Your task to perform on an android device: Clear all items from cart on target. Search for razer kraken on target, select the first entry, and add it to the cart. Image 0: 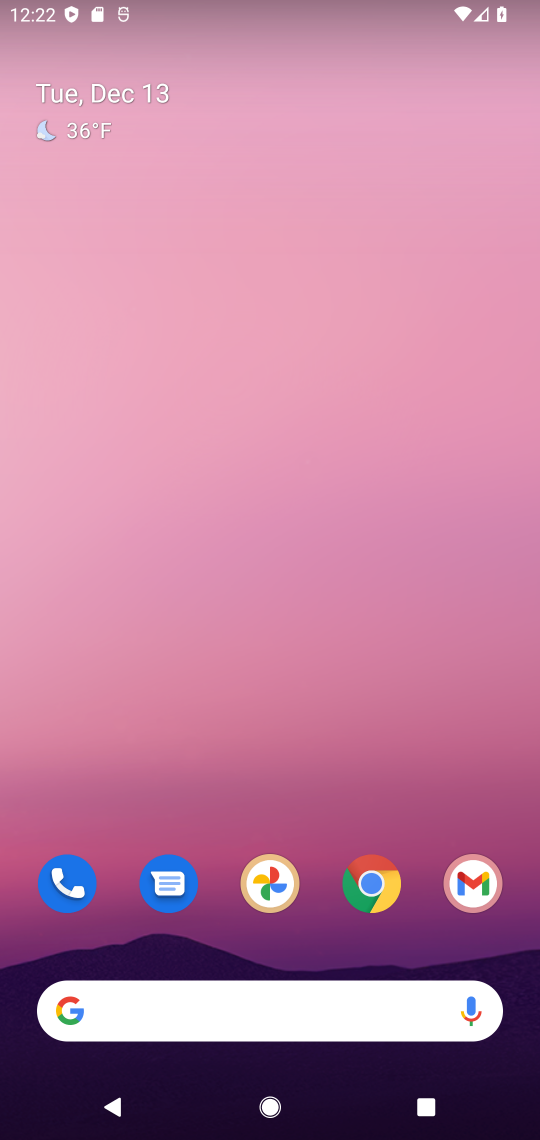
Step 0: drag from (262, 860) to (242, 474)
Your task to perform on an android device: Clear all items from cart on target. Search for razer kraken on target, select the first entry, and add it to the cart. Image 1: 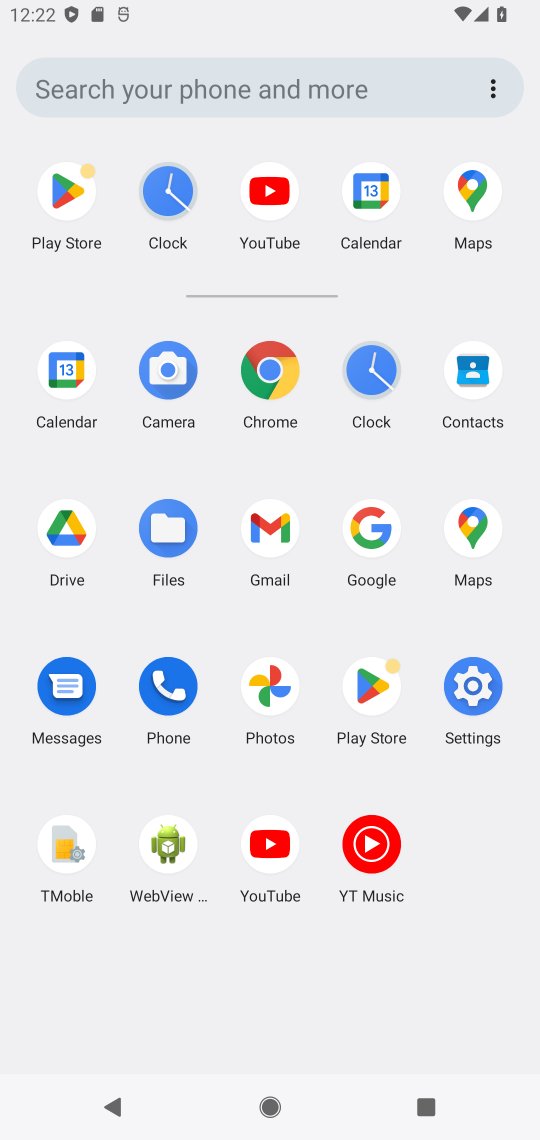
Step 1: click (377, 526)
Your task to perform on an android device: Clear all items from cart on target. Search for razer kraken on target, select the first entry, and add it to the cart. Image 2: 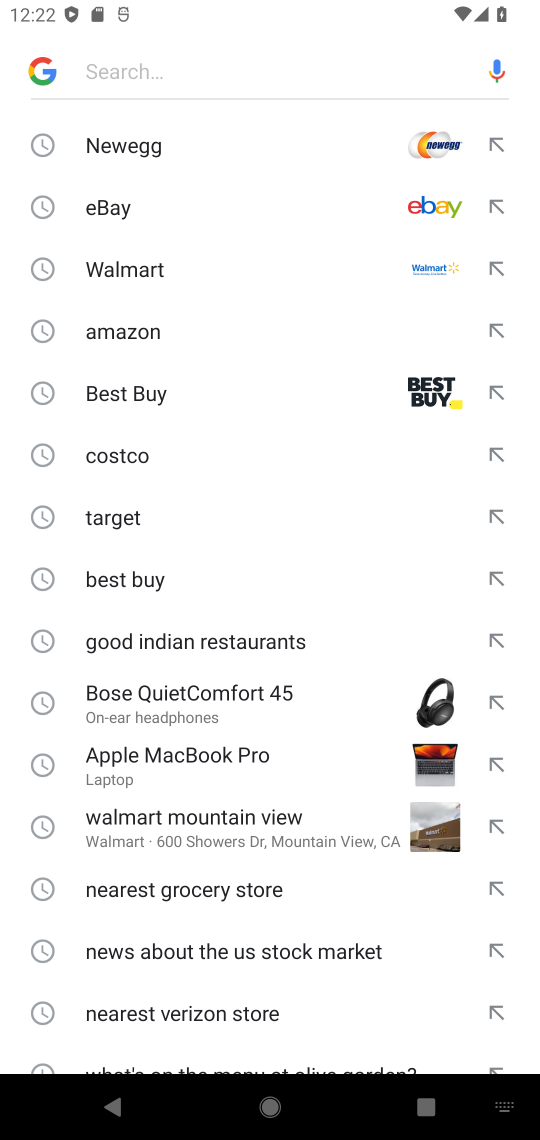
Step 2: click (106, 522)
Your task to perform on an android device: Clear all items from cart on target. Search for razer kraken on target, select the first entry, and add it to the cart. Image 3: 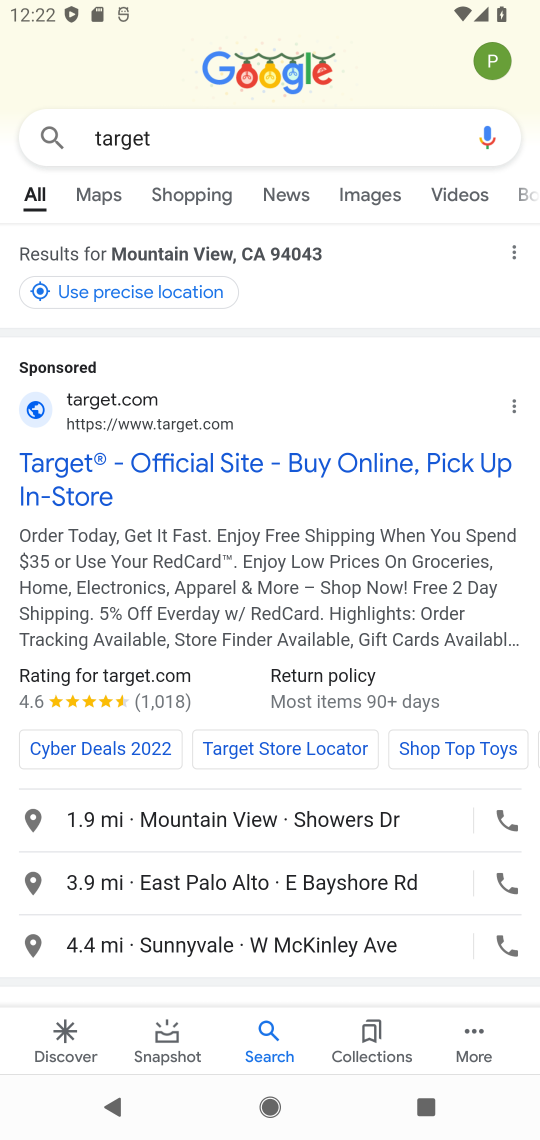
Step 3: drag from (122, 880) to (156, 646)
Your task to perform on an android device: Clear all items from cart on target. Search for razer kraken on target, select the first entry, and add it to the cart. Image 4: 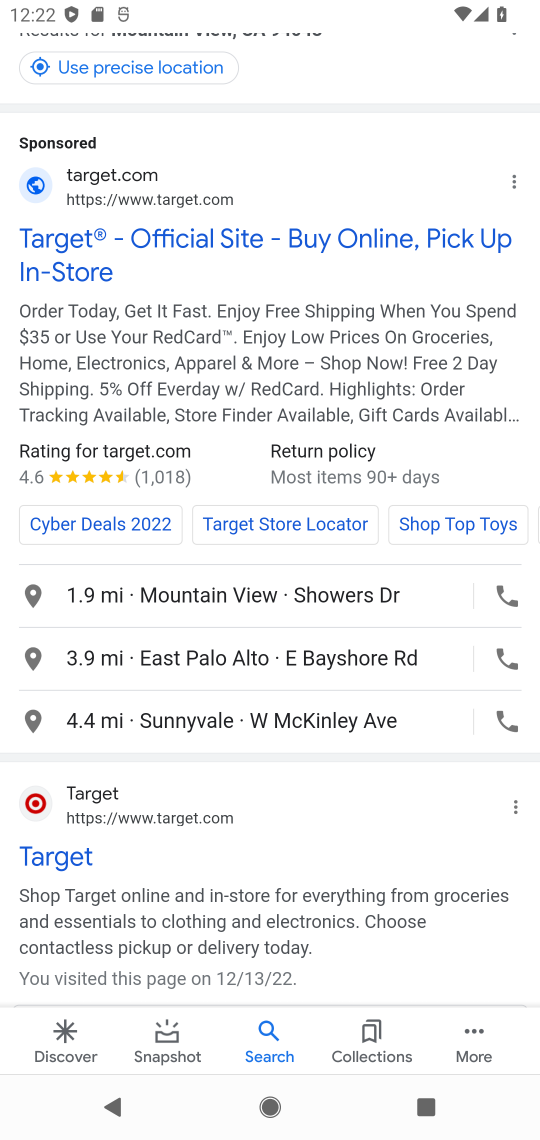
Step 4: click (45, 974)
Your task to perform on an android device: Clear all items from cart on target. Search for razer kraken on target, select the first entry, and add it to the cart. Image 5: 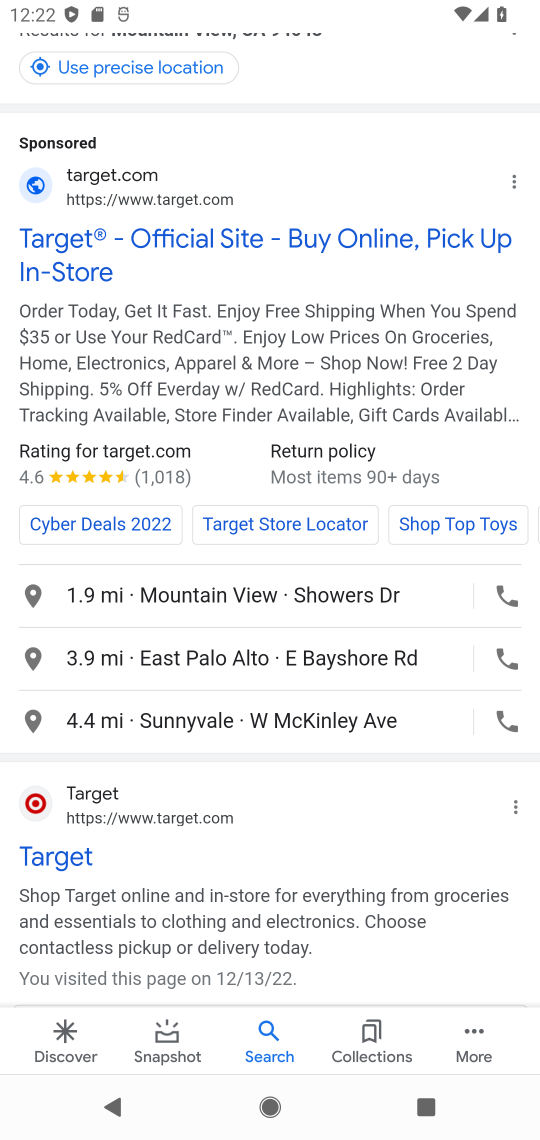
Step 5: click (56, 842)
Your task to perform on an android device: Clear all items from cart on target. Search for razer kraken on target, select the first entry, and add it to the cart. Image 6: 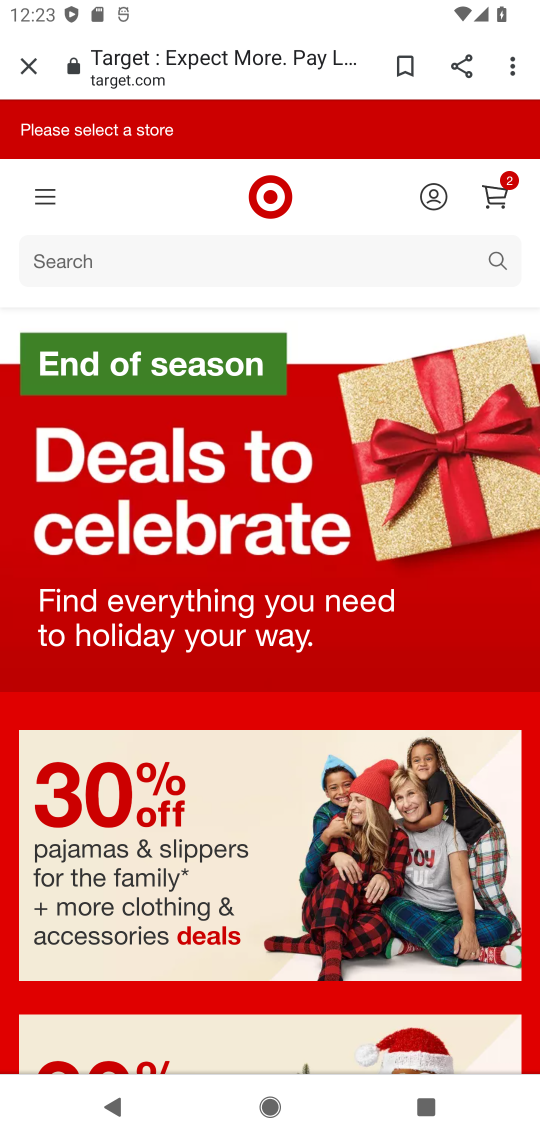
Step 6: click (501, 192)
Your task to perform on an android device: Clear all items from cart on target. Search for razer kraken on target, select the first entry, and add it to the cart. Image 7: 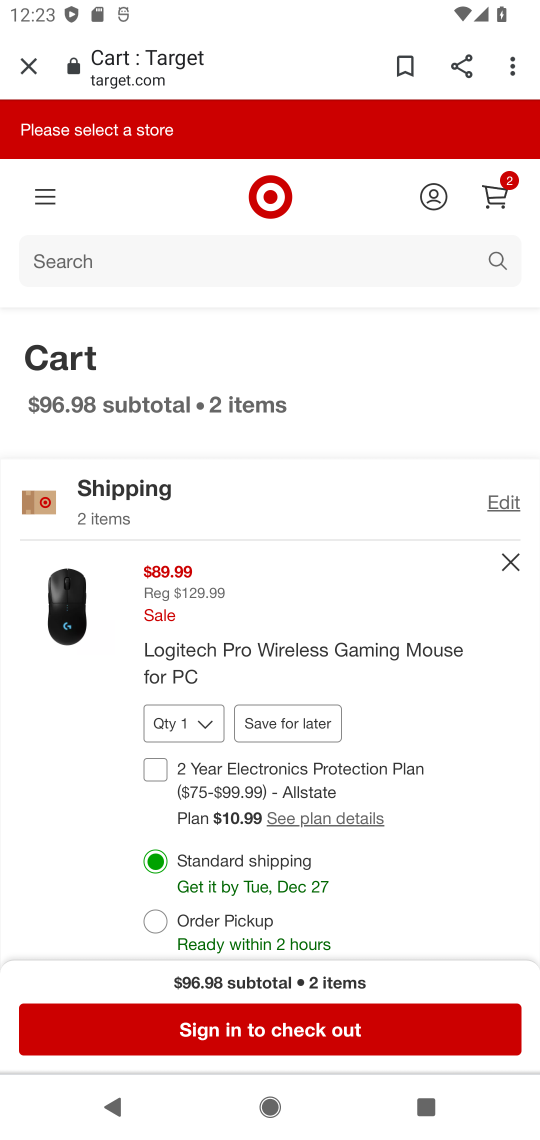
Step 7: click (516, 568)
Your task to perform on an android device: Clear all items from cart on target. Search for razer kraken on target, select the first entry, and add it to the cart. Image 8: 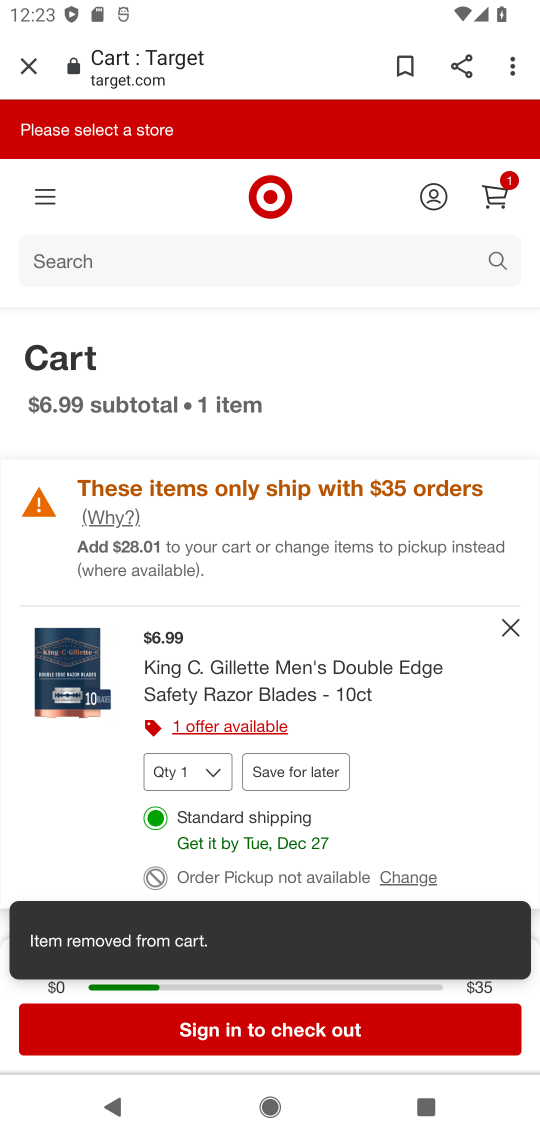
Step 8: click (502, 623)
Your task to perform on an android device: Clear all items from cart on target. Search for razer kraken on target, select the first entry, and add it to the cart. Image 9: 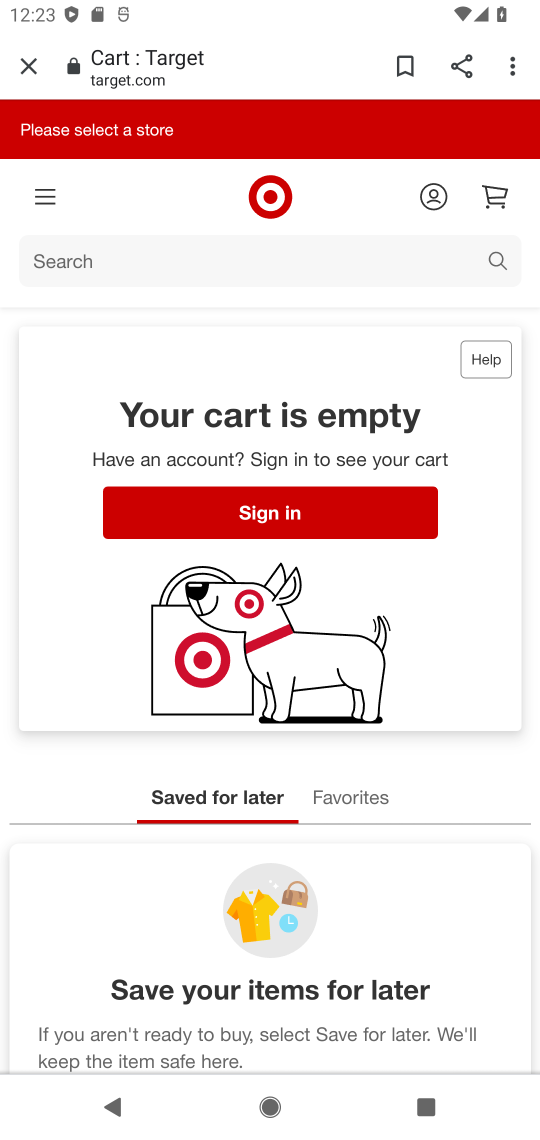
Step 9: click (132, 261)
Your task to perform on an android device: Clear all items from cart on target. Search for razer kraken on target, select the first entry, and add it to the cart. Image 10: 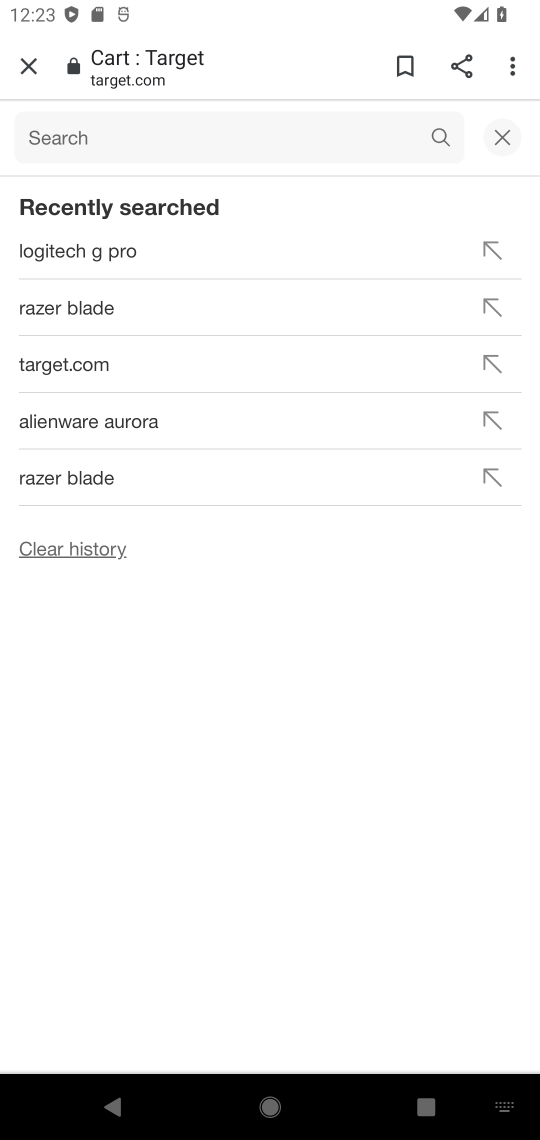
Step 10: type "razer kraken "
Your task to perform on an android device: Clear all items from cart on target. Search for razer kraken on target, select the first entry, and add it to the cart. Image 11: 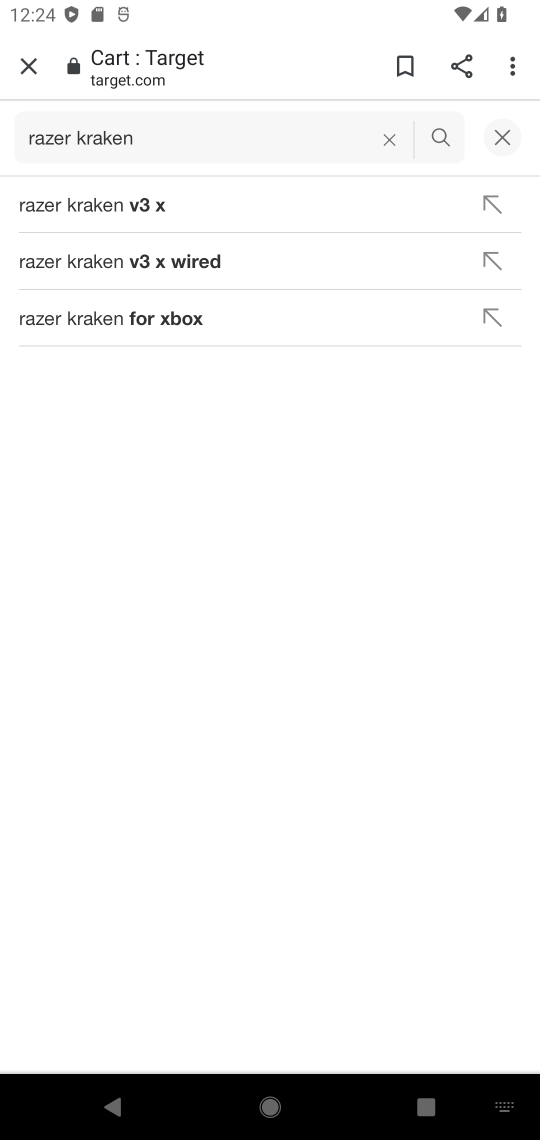
Step 11: click (432, 123)
Your task to perform on an android device: Clear all items from cart on target. Search for razer kraken on target, select the first entry, and add it to the cart. Image 12: 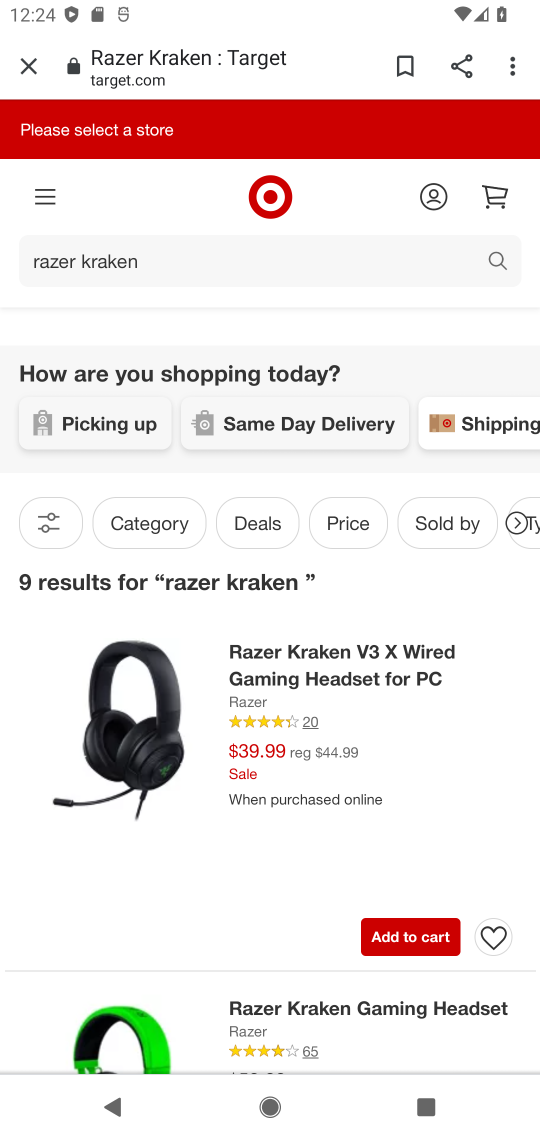
Step 12: click (405, 937)
Your task to perform on an android device: Clear all items from cart on target. Search for razer kraken on target, select the first entry, and add it to the cart. Image 13: 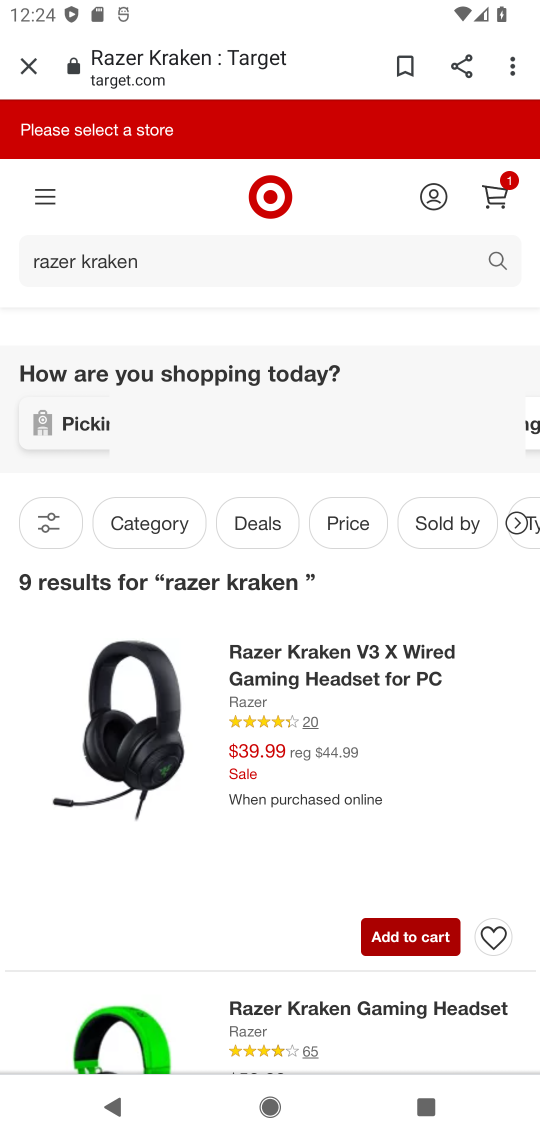
Step 13: task complete